Your task to perform on an android device: change the clock display to analog Image 0: 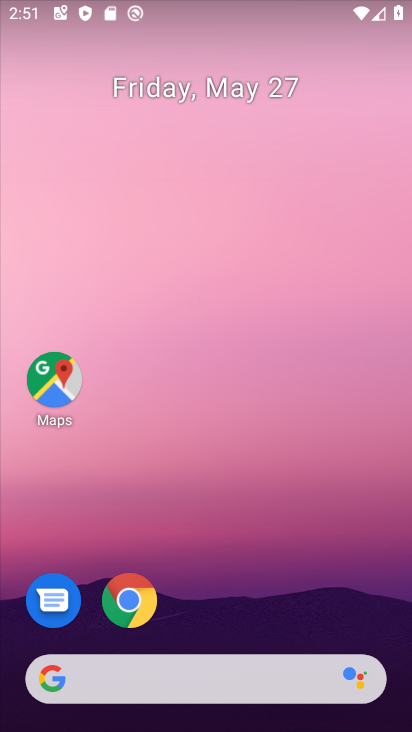
Step 0: click (272, 580)
Your task to perform on an android device: change the clock display to analog Image 1: 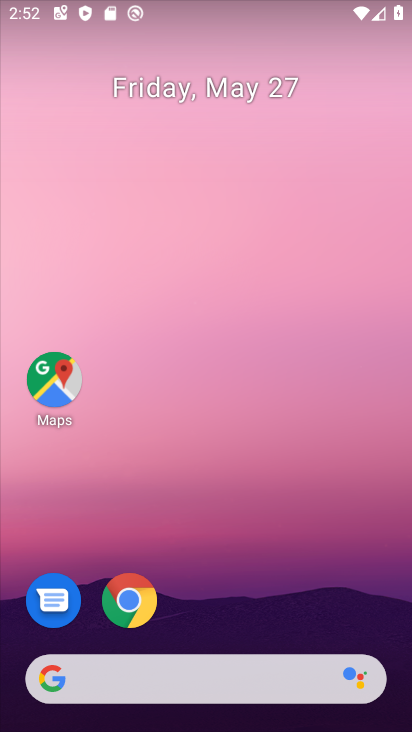
Step 1: drag from (248, 624) to (309, 0)
Your task to perform on an android device: change the clock display to analog Image 2: 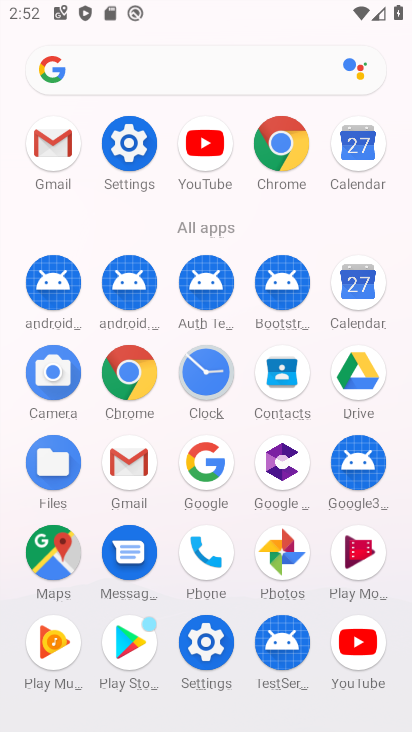
Step 2: click (225, 379)
Your task to perform on an android device: change the clock display to analog Image 3: 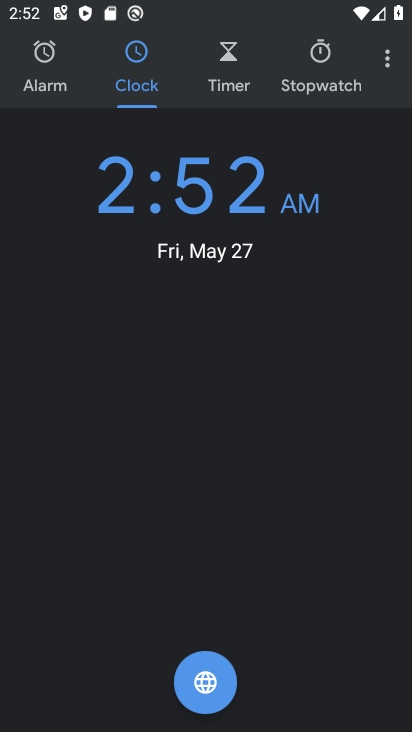
Step 3: click (383, 61)
Your task to perform on an android device: change the clock display to analog Image 4: 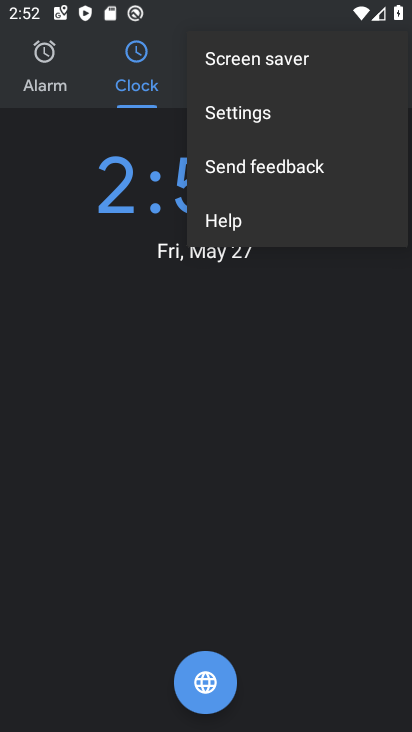
Step 4: click (267, 128)
Your task to perform on an android device: change the clock display to analog Image 5: 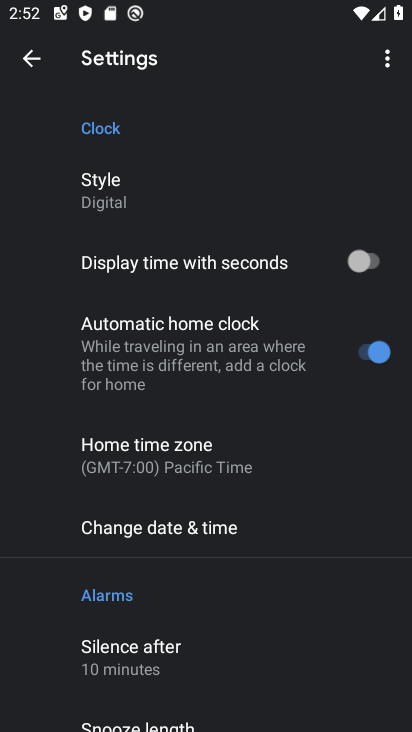
Step 5: click (187, 208)
Your task to perform on an android device: change the clock display to analog Image 6: 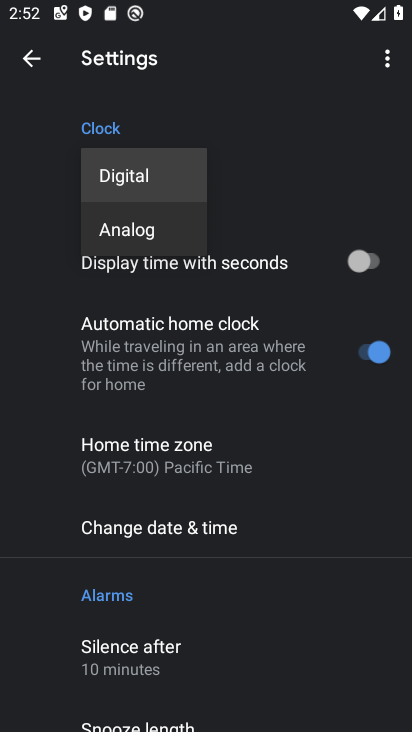
Step 6: click (175, 236)
Your task to perform on an android device: change the clock display to analog Image 7: 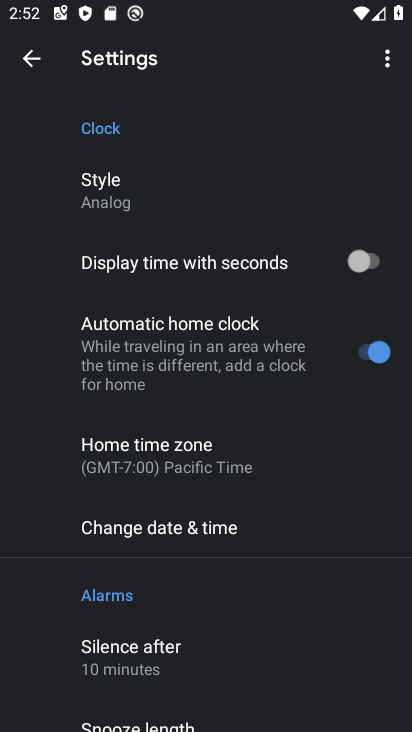
Step 7: task complete